Your task to perform on an android device: Do I have any events today? Image 0: 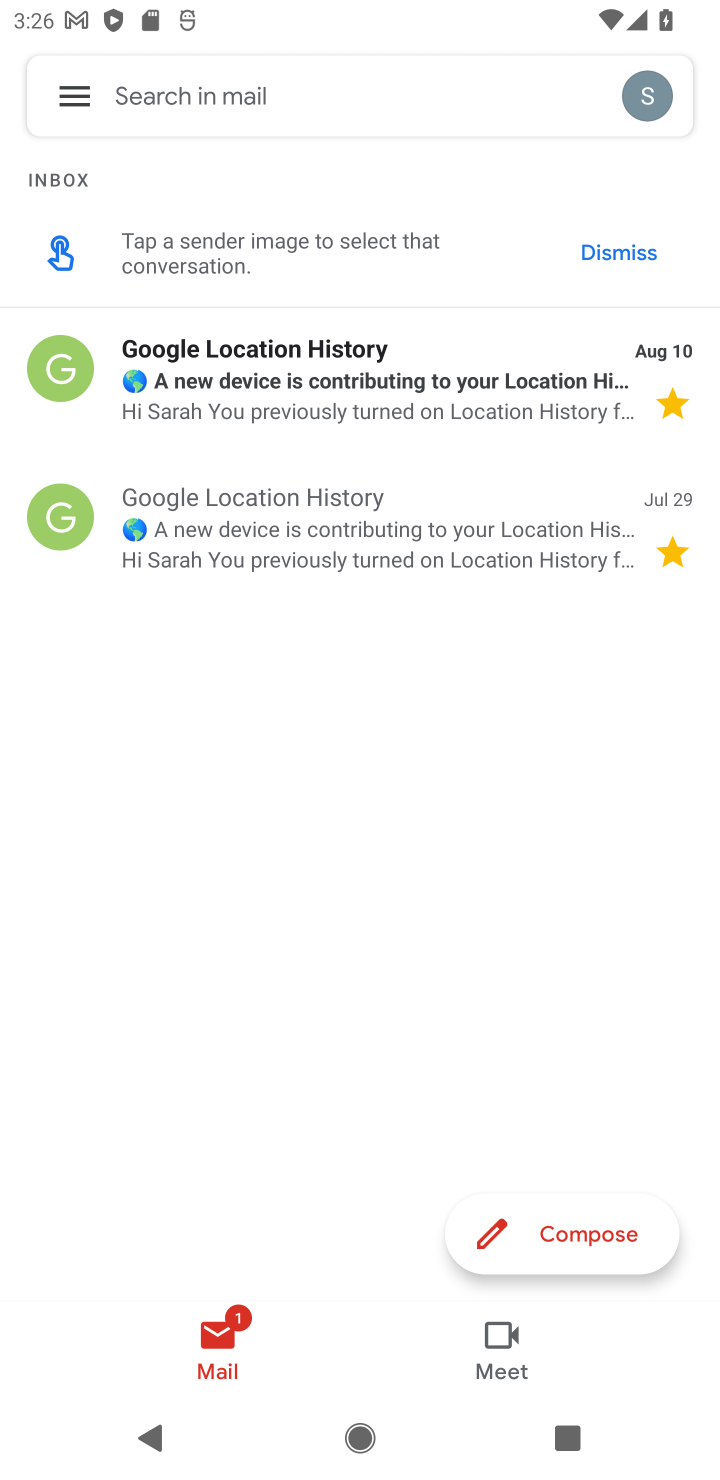
Step 0: press home button
Your task to perform on an android device: Do I have any events today? Image 1: 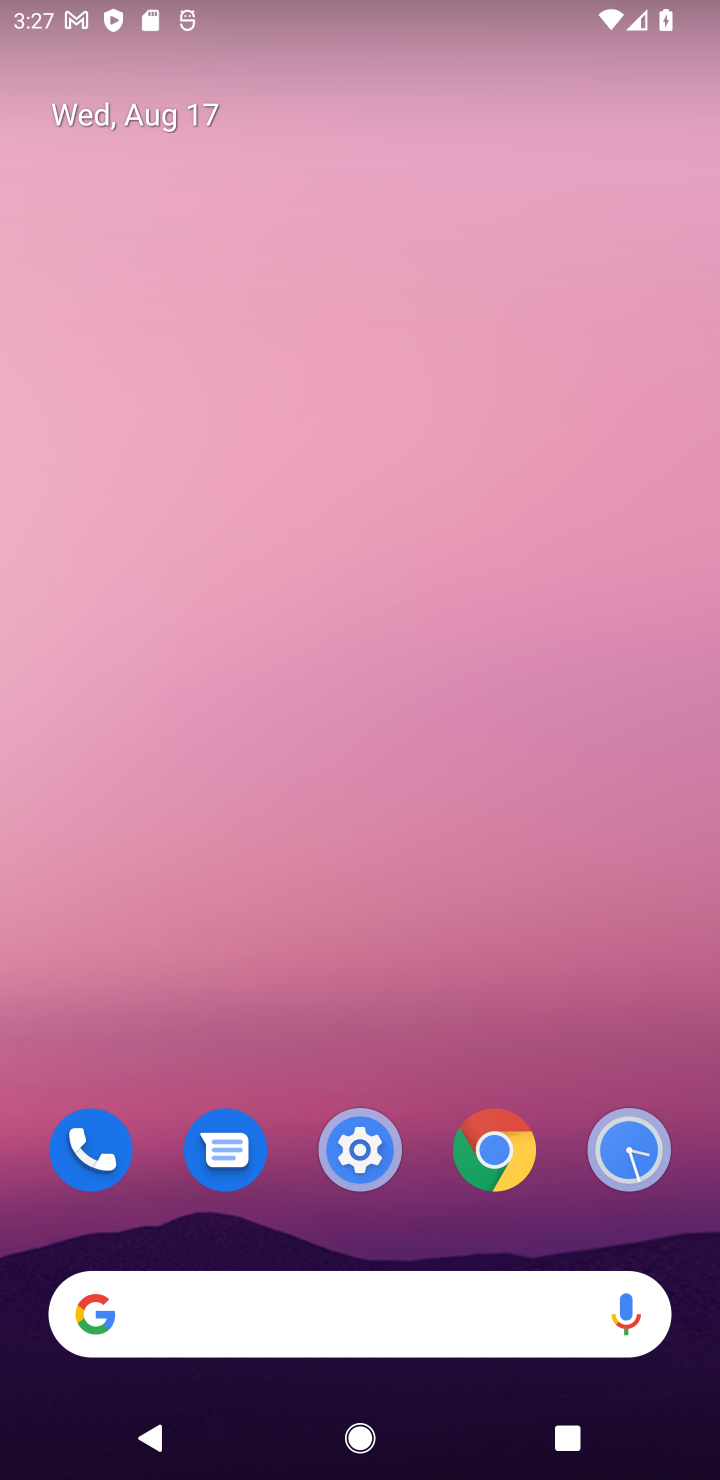
Step 1: drag from (501, 536) to (414, 50)
Your task to perform on an android device: Do I have any events today? Image 2: 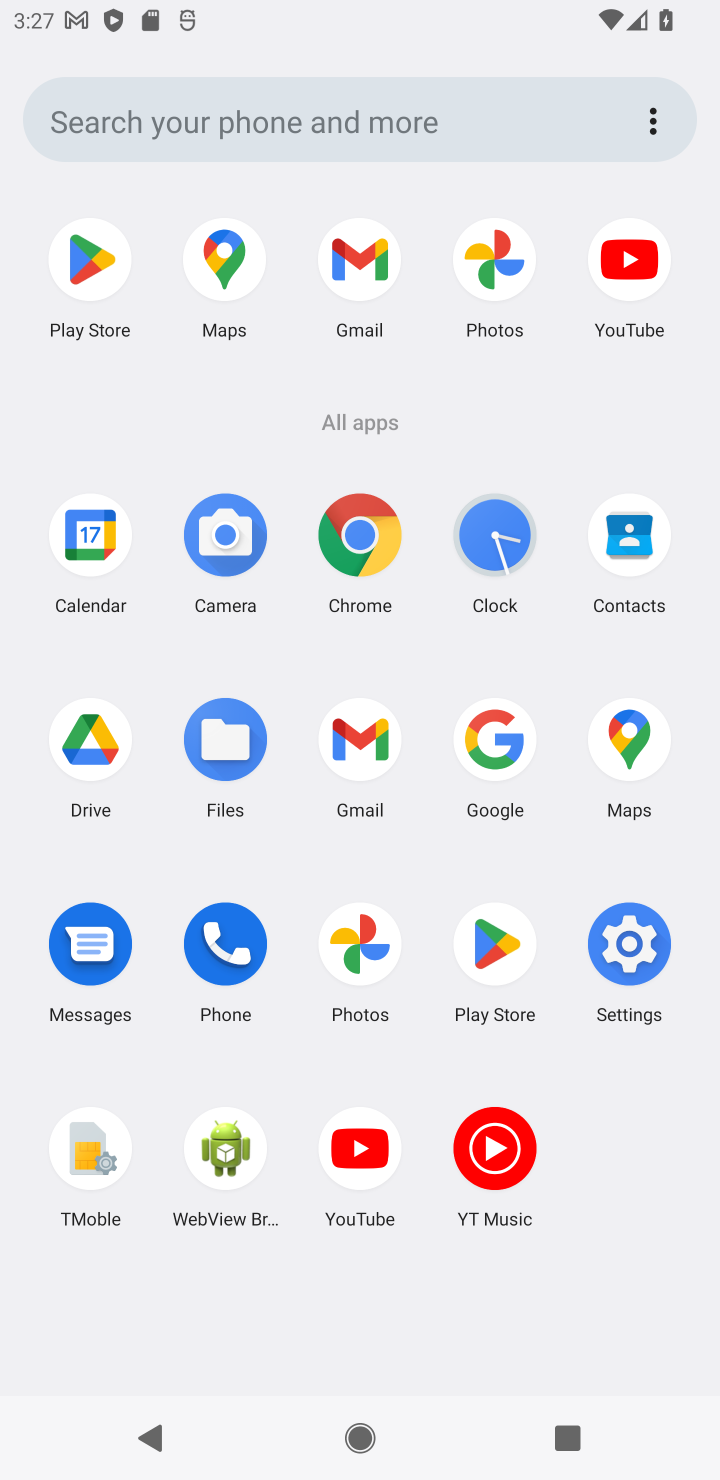
Step 2: click (116, 513)
Your task to perform on an android device: Do I have any events today? Image 3: 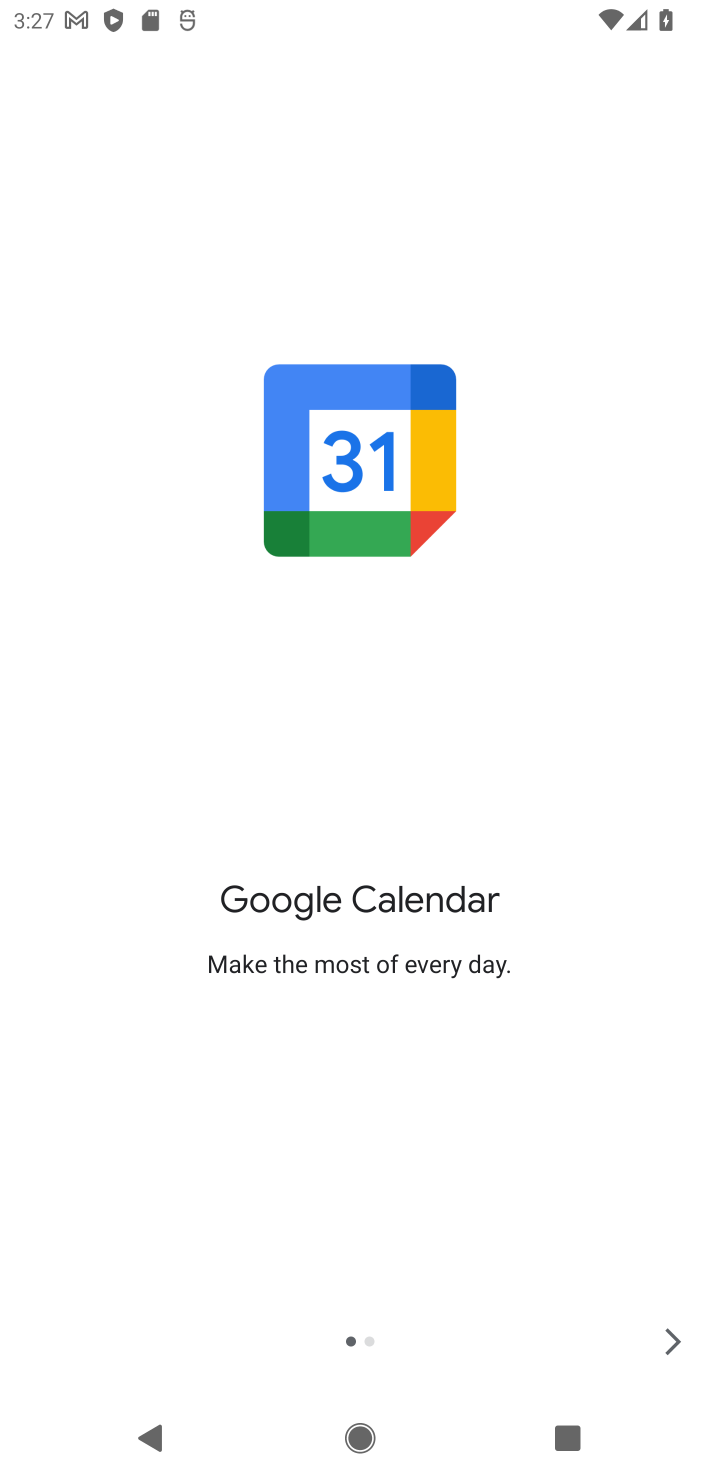
Step 3: click (676, 1342)
Your task to perform on an android device: Do I have any events today? Image 4: 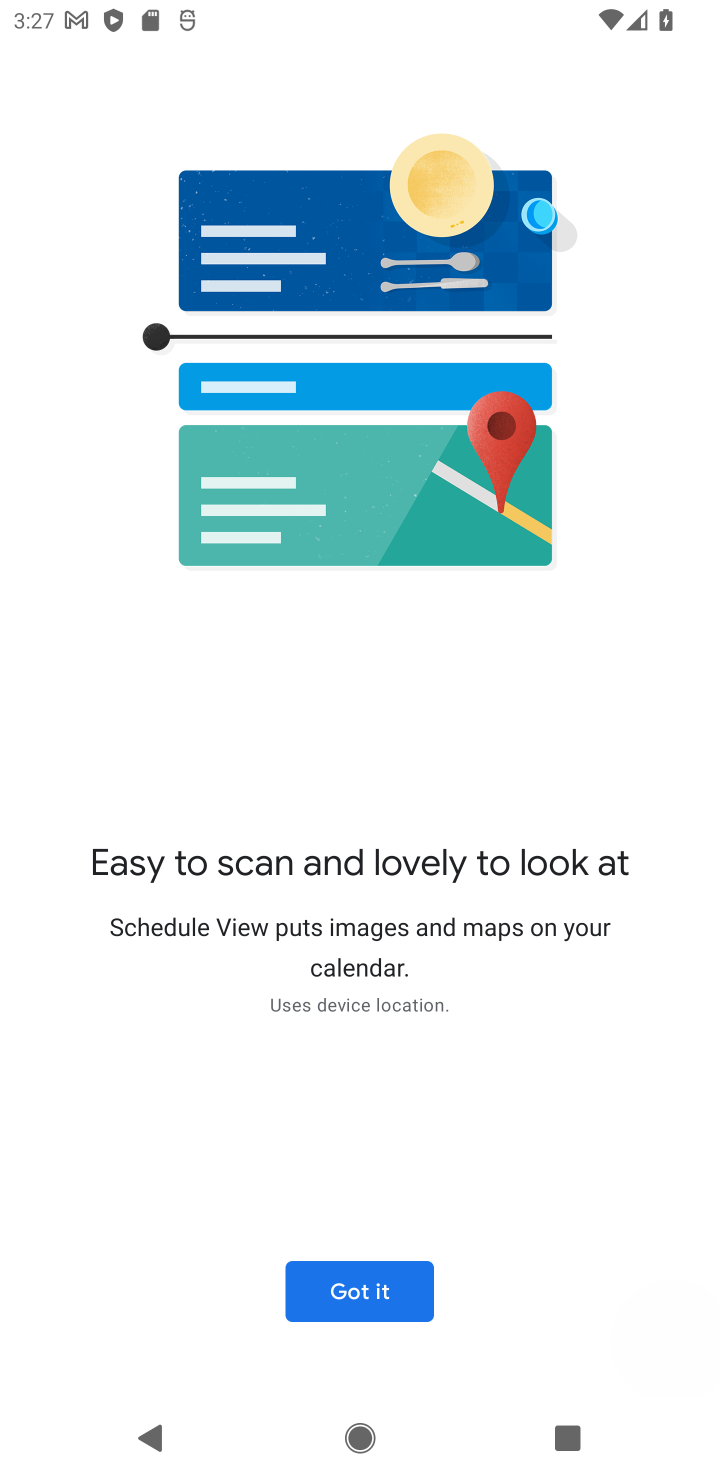
Step 4: click (676, 1342)
Your task to perform on an android device: Do I have any events today? Image 5: 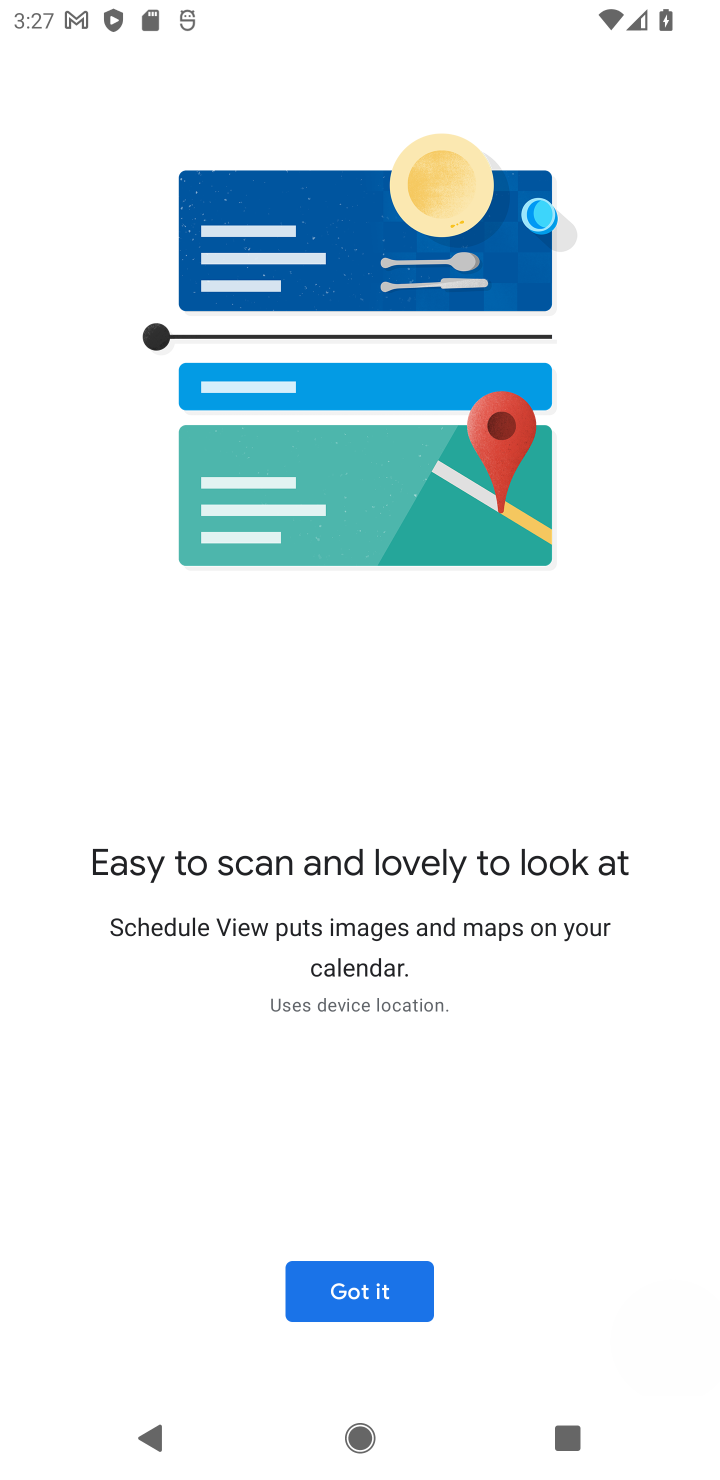
Step 5: click (379, 1303)
Your task to perform on an android device: Do I have any events today? Image 6: 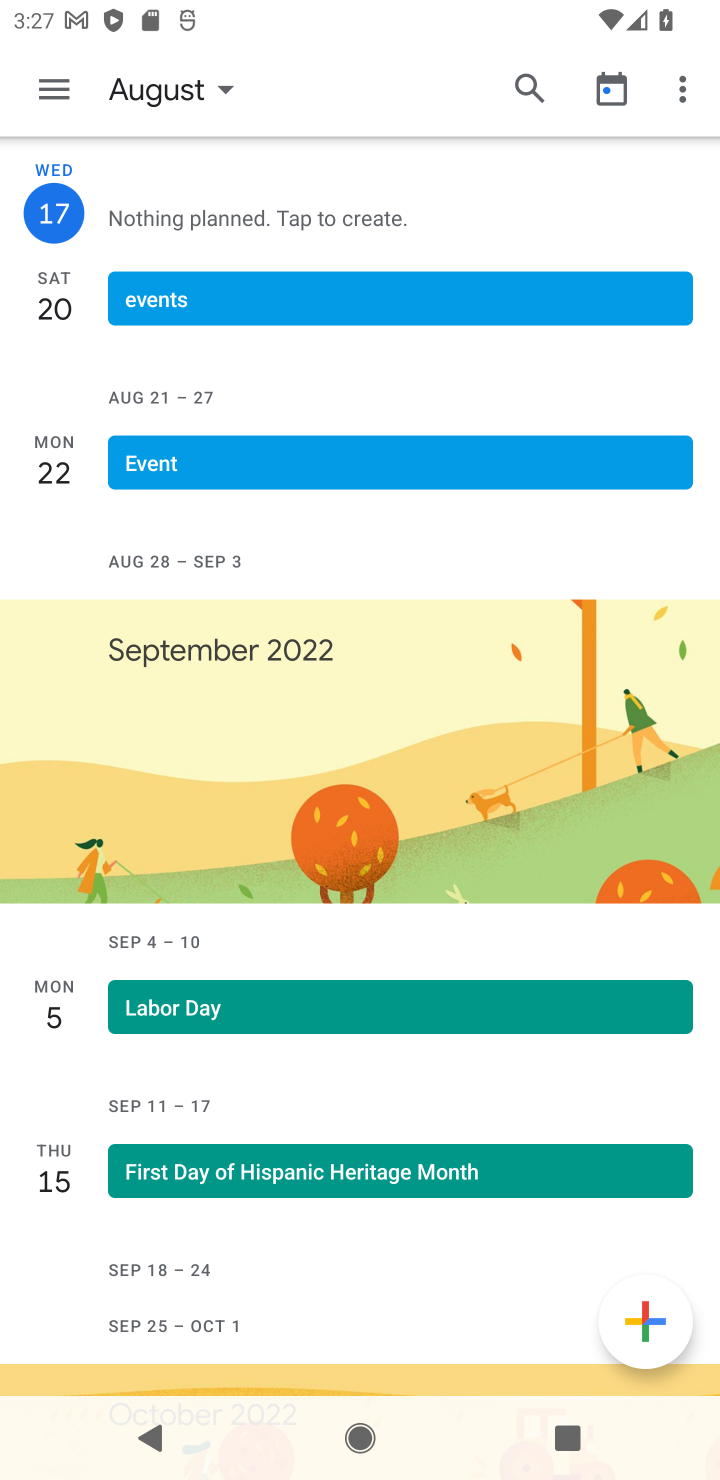
Step 6: task complete